Your task to perform on an android device: Do I have any events this weekend? Image 0: 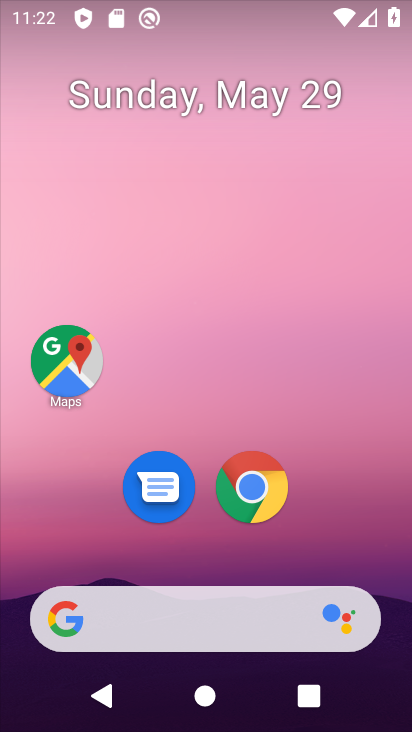
Step 0: drag from (237, 728) to (235, 132)
Your task to perform on an android device: Do I have any events this weekend? Image 1: 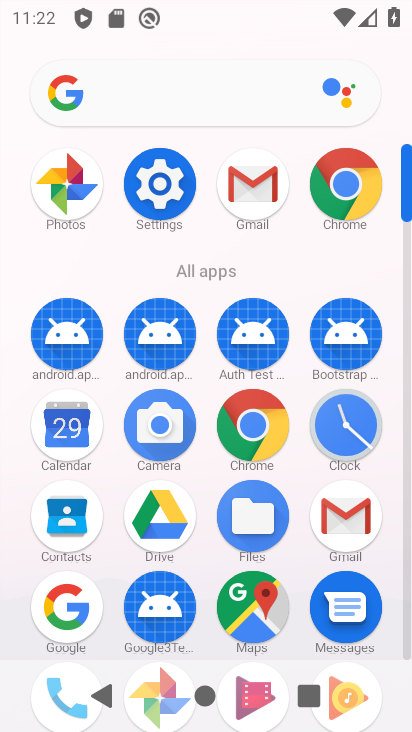
Step 1: click (63, 423)
Your task to perform on an android device: Do I have any events this weekend? Image 2: 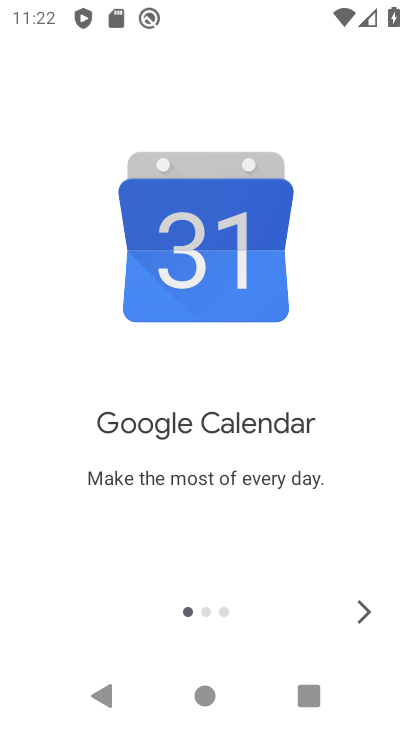
Step 2: click (365, 602)
Your task to perform on an android device: Do I have any events this weekend? Image 3: 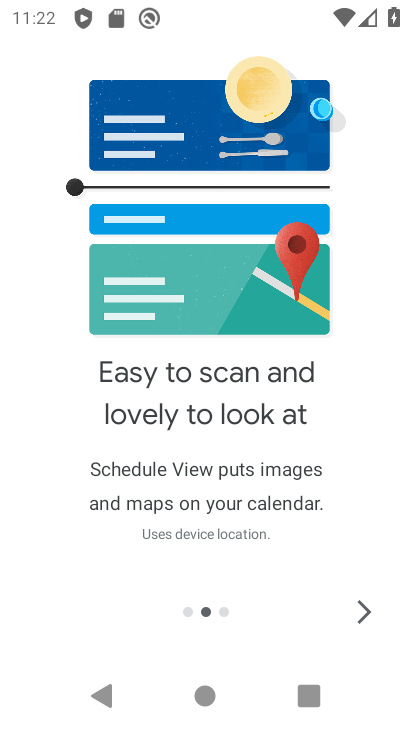
Step 3: click (365, 602)
Your task to perform on an android device: Do I have any events this weekend? Image 4: 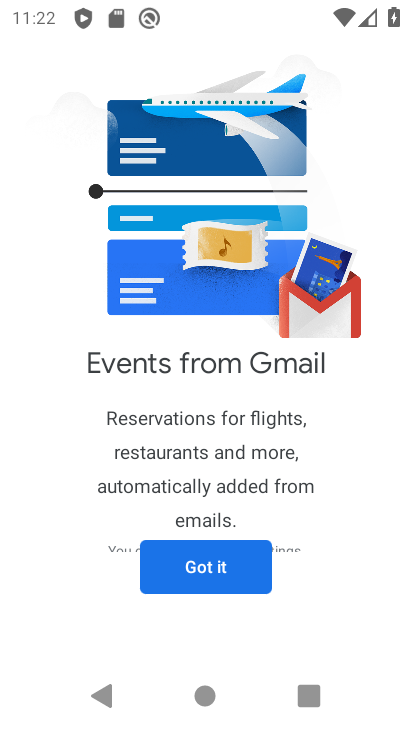
Step 4: click (225, 555)
Your task to perform on an android device: Do I have any events this weekend? Image 5: 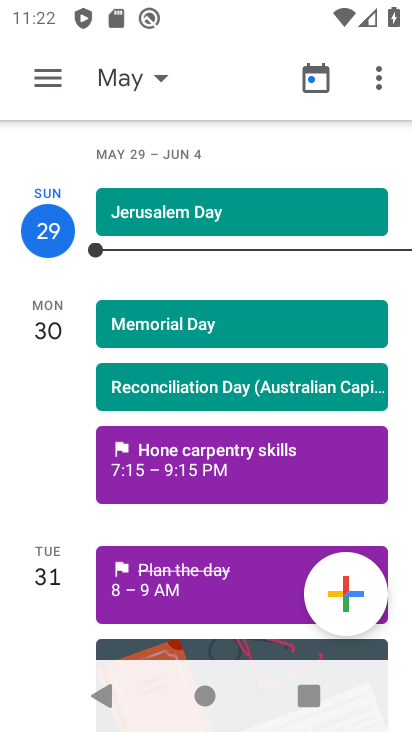
Step 5: click (154, 72)
Your task to perform on an android device: Do I have any events this weekend? Image 6: 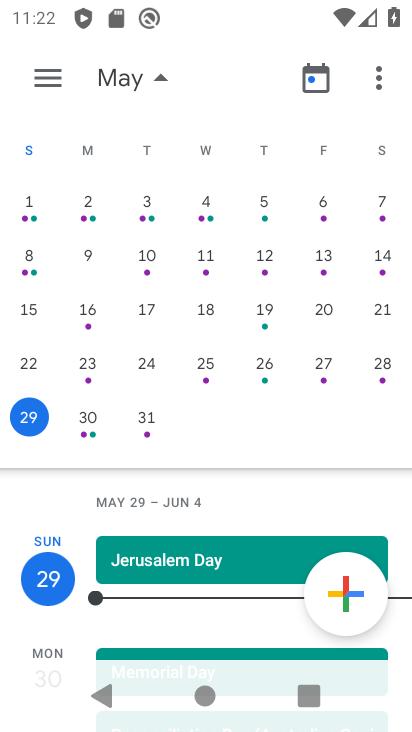
Step 6: drag from (330, 285) to (17, 231)
Your task to perform on an android device: Do I have any events this weekend? Image 7: 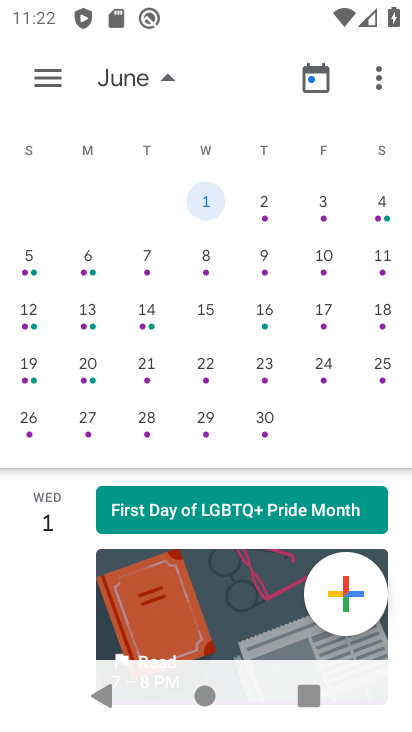
Step 7: click (383, 198)
Your task to perform on an android device: Do I have any events this weekend? Image 8: 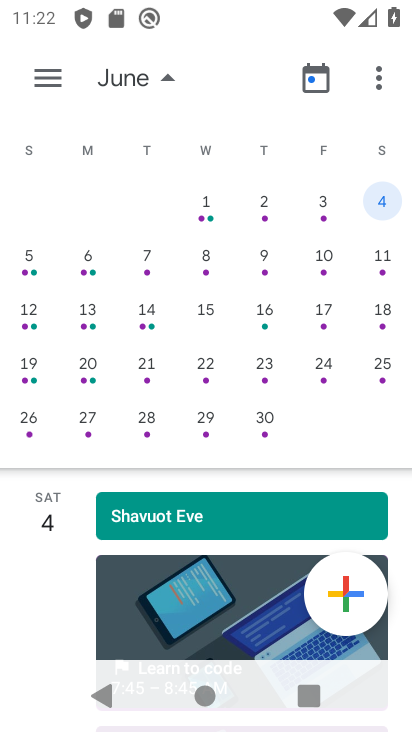
Step 8: click (55, 75)
Your task to perform on an android device: Do I have any events this weekend? Image 9: 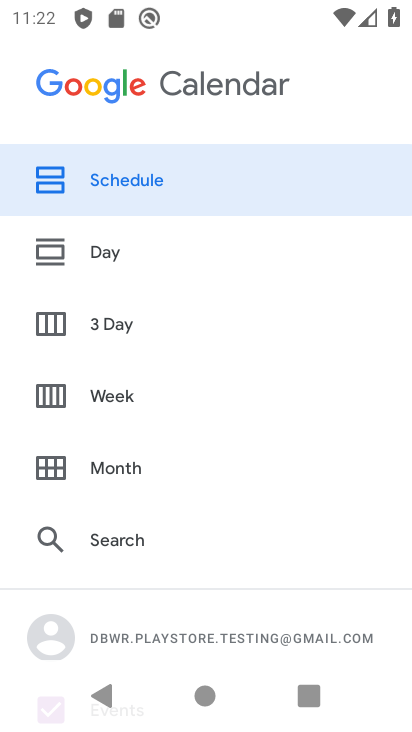
Step 9: drag from (113, 628) to (116, 220)
Your task to perform on an android device: Do I have any events this weekend? Image 10: 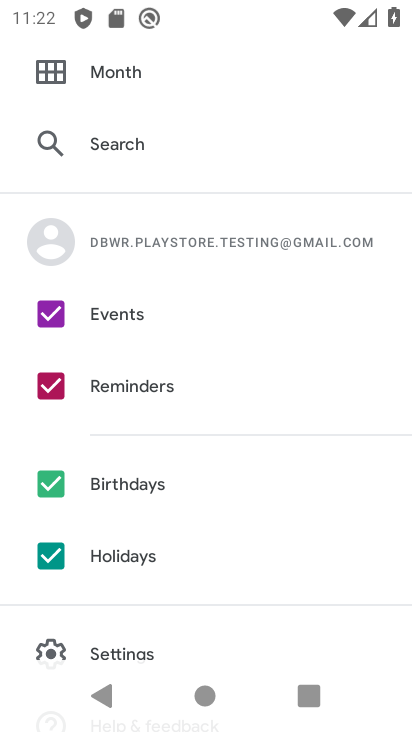
Step 10: click (55, 557)
Your task to perform on an android device: Do I have any events this weekend? Image 11: 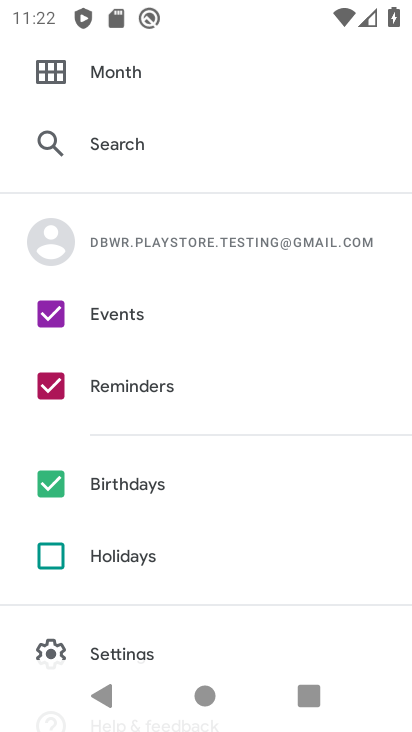
Step 11: click (50, 479)
Your task to perform on an android device: Do I have any events this weekend? Image 12: 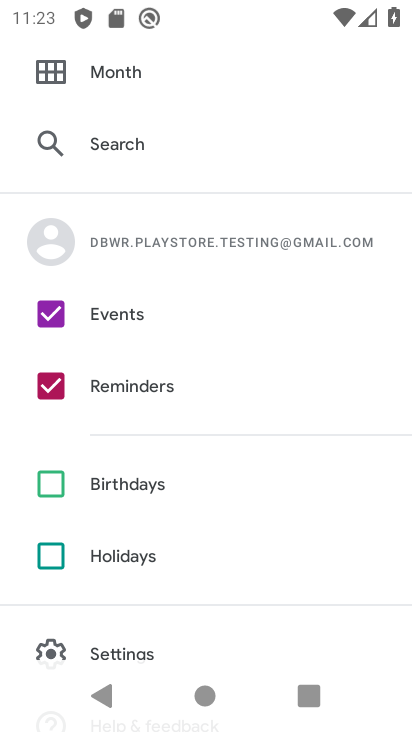
Step 12: click (50, 383)
Your task to perform on an android device: Do I have any events this weekend? Image 13: 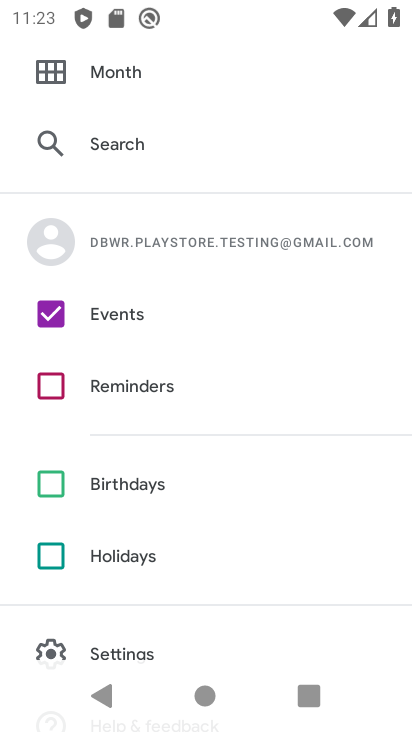
Step 13: drag from (246, 175) to (256, 501)
Your task to perform on an android device: Do I have any events this weekend? Image 14: 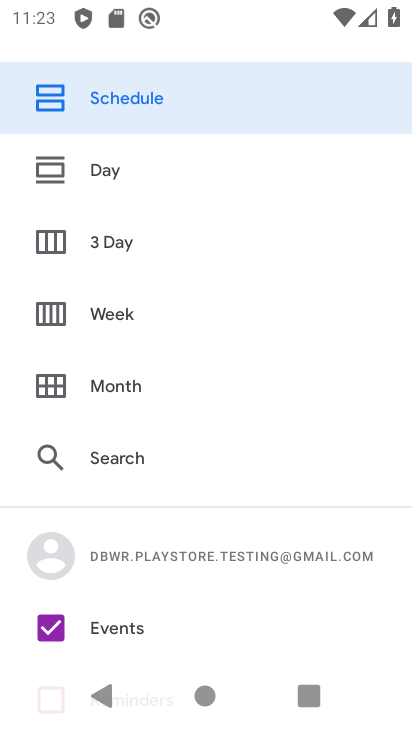
Step 14: click (115, 315)
Your task to perform on an android device: Do I have any events this weekend? Image 15: 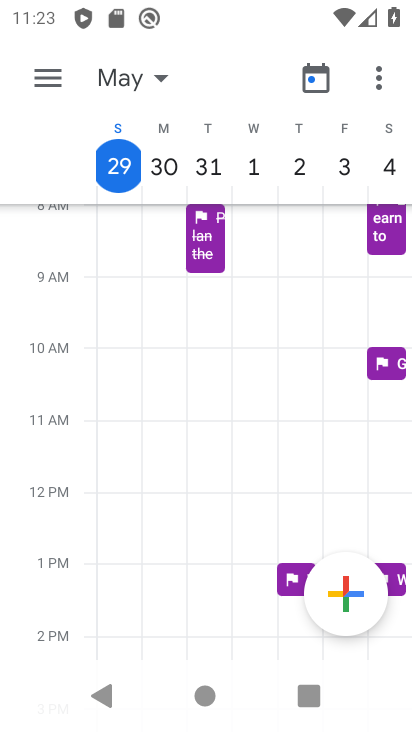
Step 15: click (392, 165)
Your task to perform on an android device: Do I have any events this weekend? Image 16: 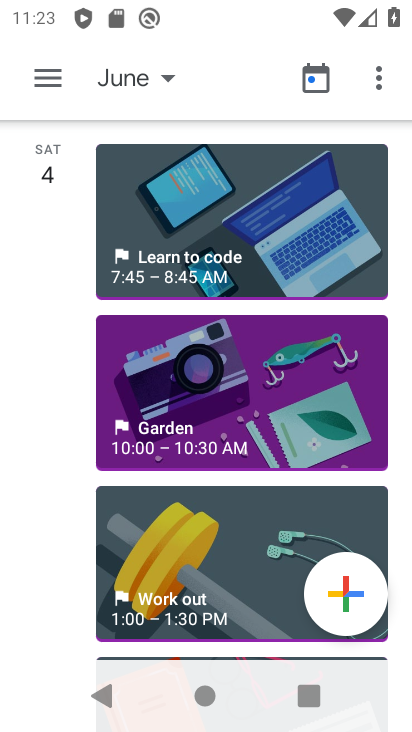
Step 16: task complete